Your task to perform on an android device: show emergency info Image 0: 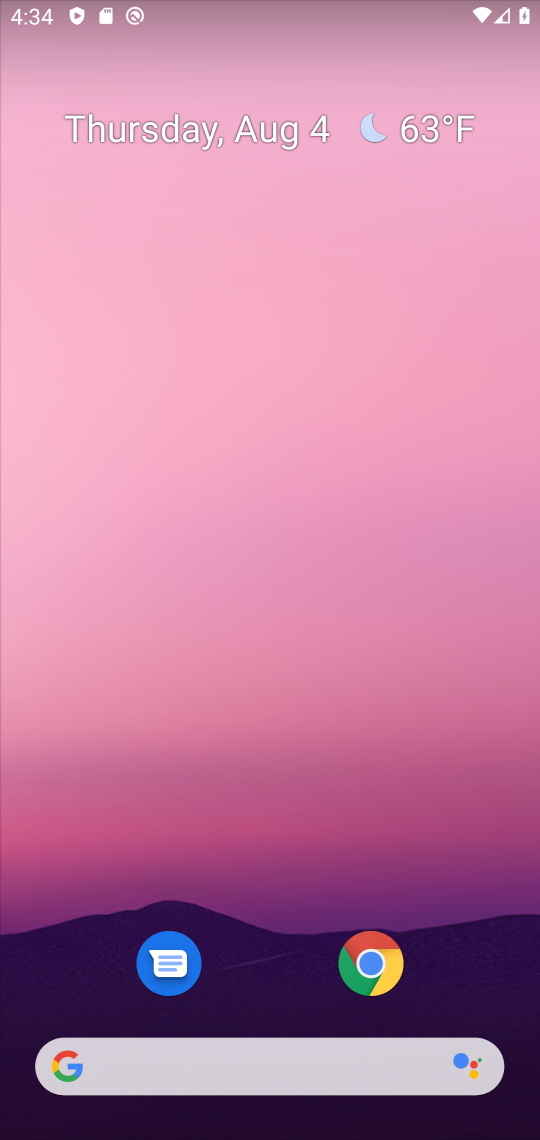
Step 0: drag from (264, 978) to (242, 127)
Your task to perform on an android device: show emergency info Image 1: 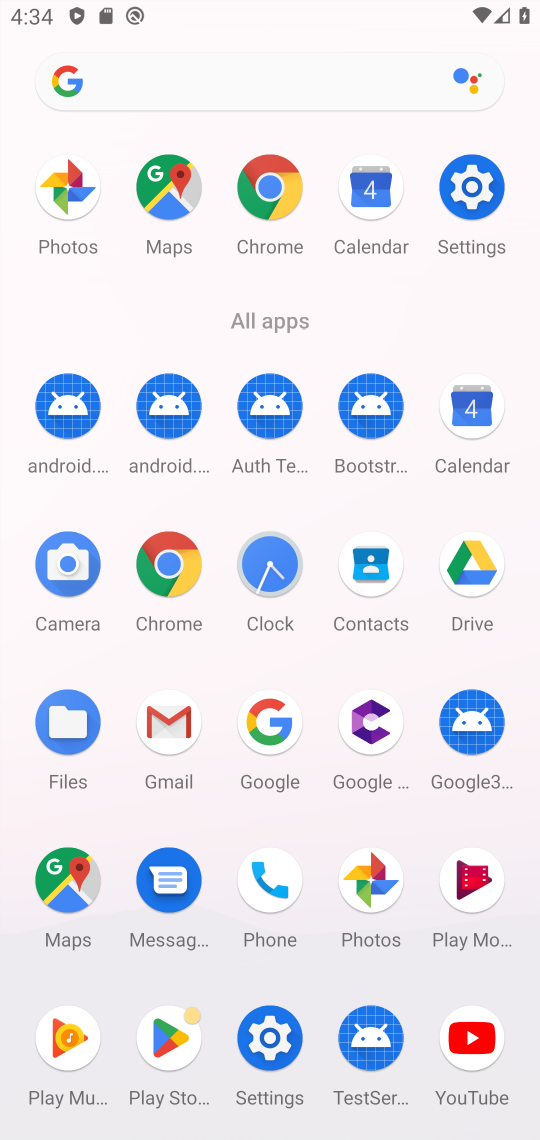
Step 1: click (457, 174)
Your task to perform on an android device: show emergency info Image 2: 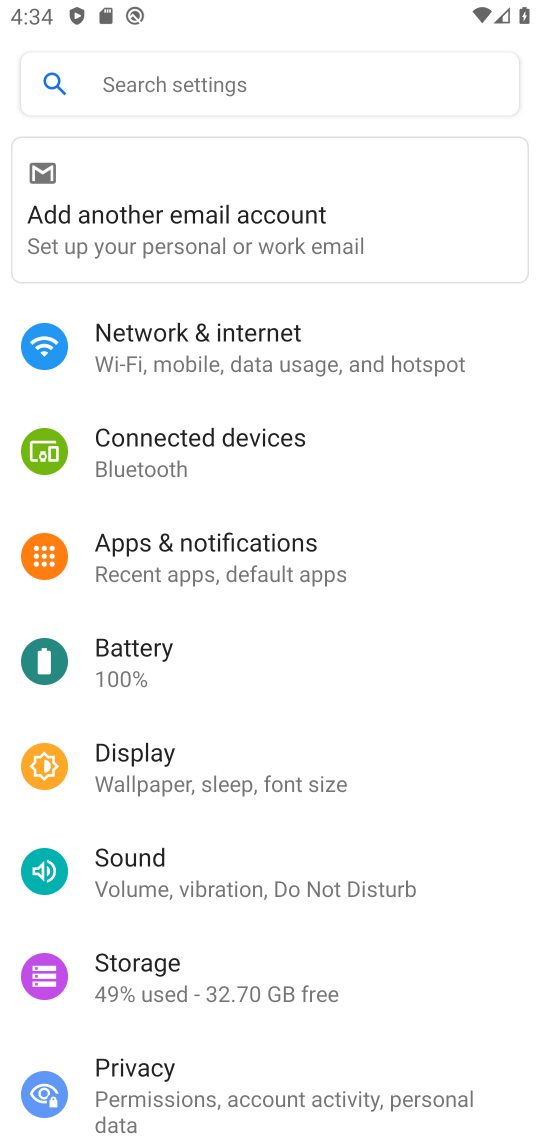
Step 2: drag from (317, 1021) to (300, 343)
Your task to perform on an android device: show emergency info Image 3: 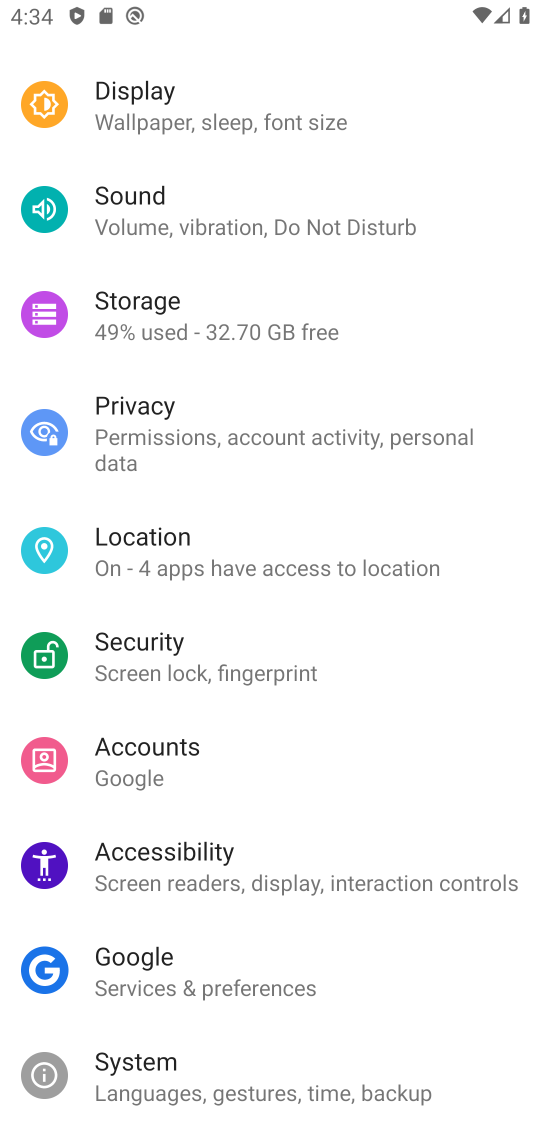
Step 3: drag from (282, 998) to (247, 251)
Your task to perform on an android device: show emergency info Image 4: 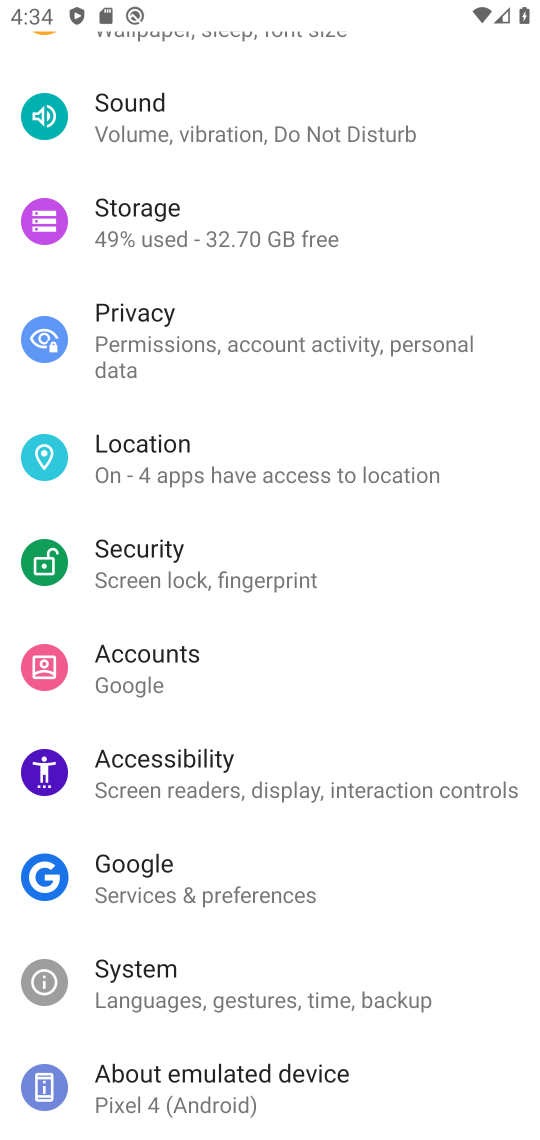
Step 4: click (197, 1073)
Your task to perform on an android device: show emergency info Image 5: 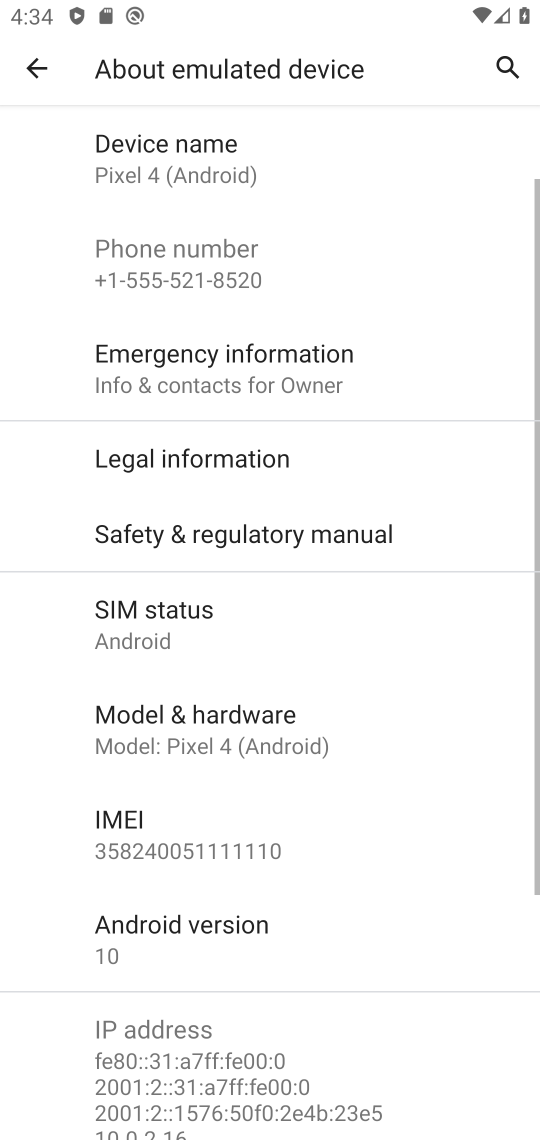
Step 5: click (193, 350)
Your task to perform on an android device: show emergency info Image 6: 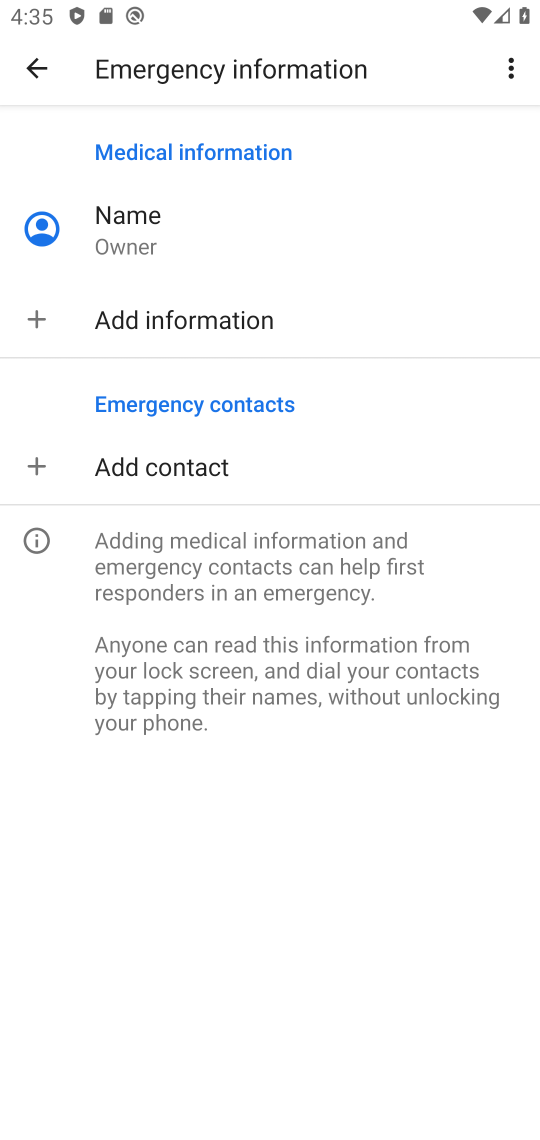
Step 6: task complete